Your task to perform on an android device: Open Chrome and go to settings Image 0: 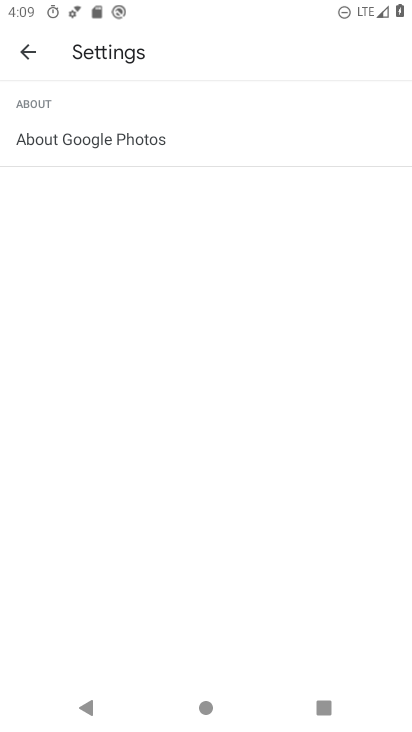
Step 0: click (21, 52)
Your task to perform on an android device: Open Chrome and go to settings Image 1: 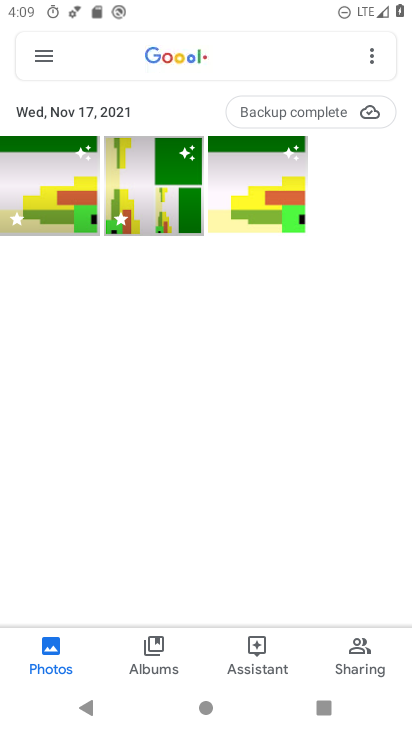
Step 1: press home button
Your task to perform on an android device: Open Chrome and go to settings Image 2: 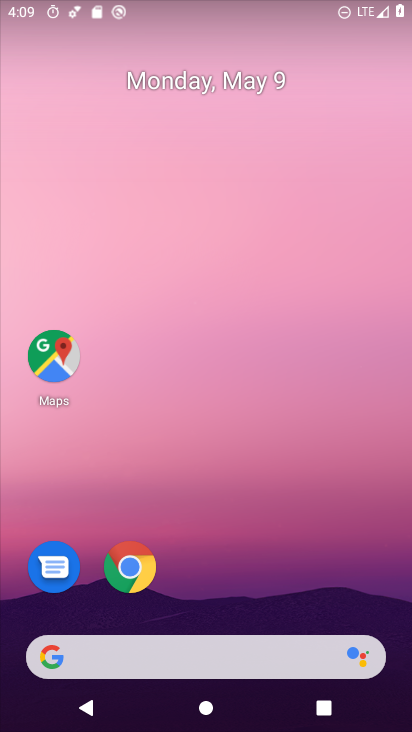
Step 2: click (148, 569)
Your task to perform on an android device: Open Chrome and go to settings Image 3: 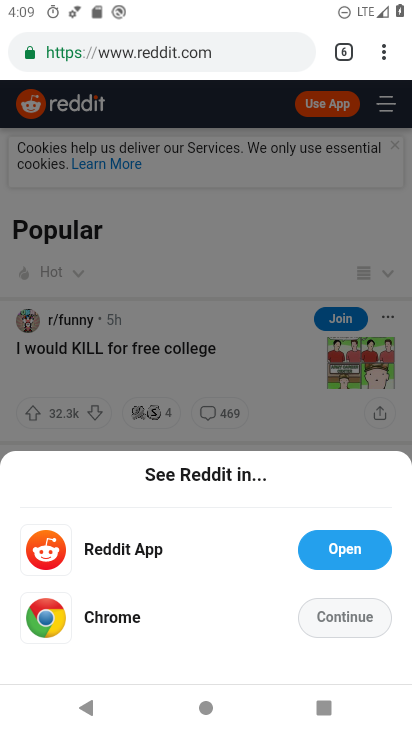
Step 3: click (386, 47)
Your task to perform on an android device: Open Chrome and go to settings Image 4: 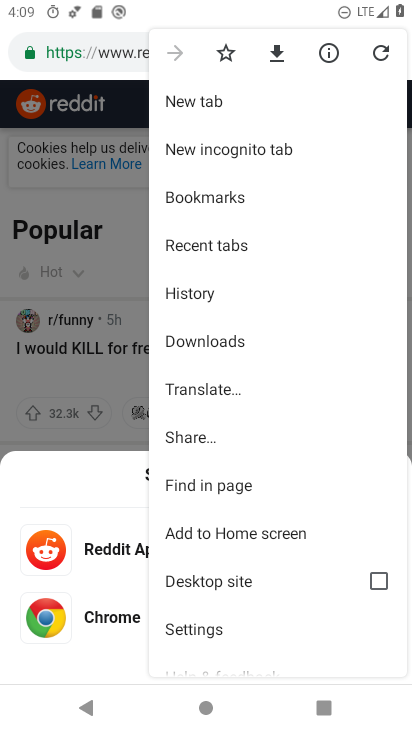
Step 4: click (213, 625)
Your task to perform on an android device: Open Chrome and go to settings Image 5: 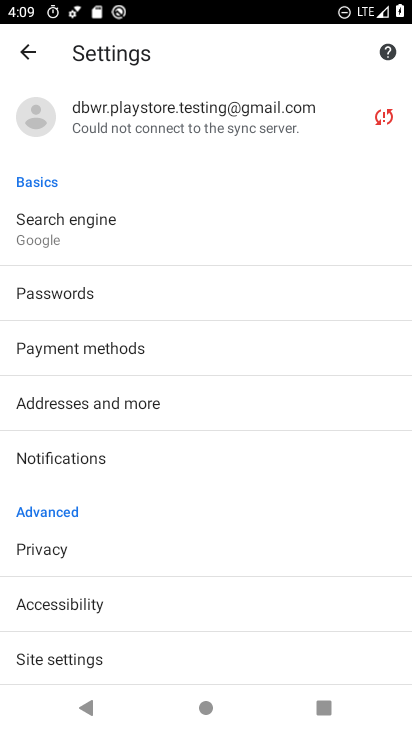
Step 5: task complete